Your task to perform on an android device: Open Chrome and go to settings Image 0: 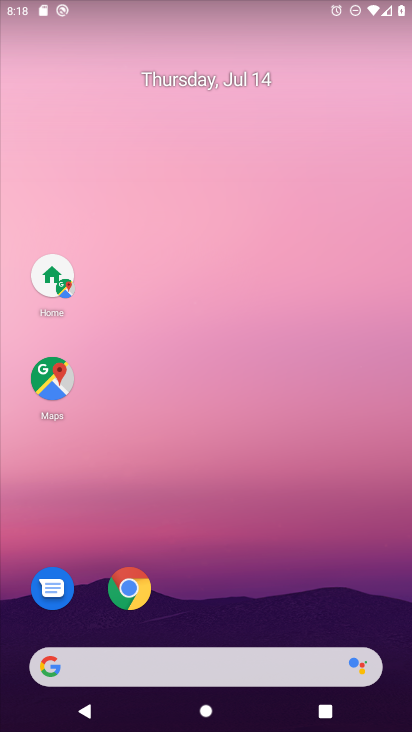
Step 0: click (129, 585)
Your task to perform on an android device: Open Chrome and go to settings Image 1: 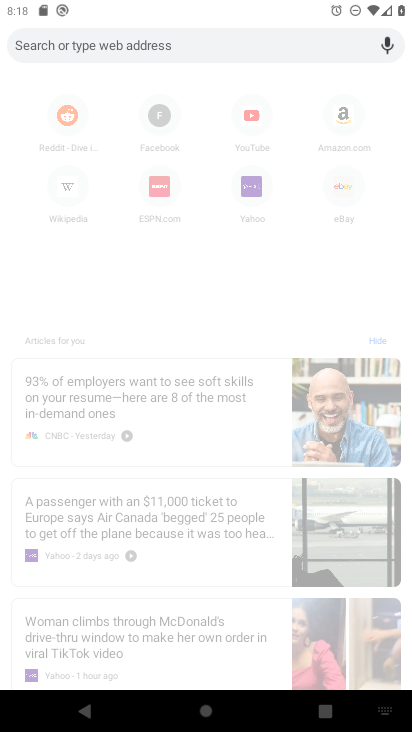
Step 1: click (116, 262)
Your task to perform on an android device: Open Chrome and go to settings Image 2: 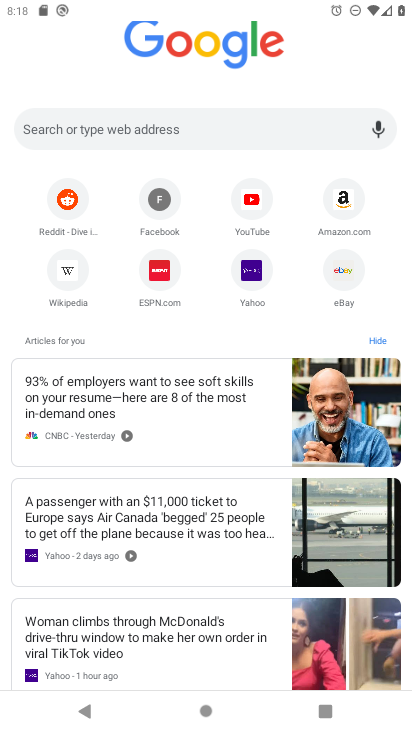
Step 2: click (207, 121)
Your task to perform on an android device: Open Chrome and go to settings Image 3: 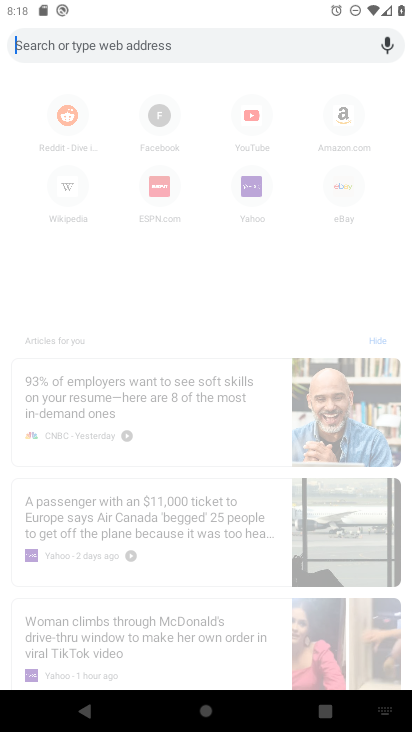
Step 3: click (130, 337)
Your task to perform on an android device: Open Chrome and go to settings Image 4: 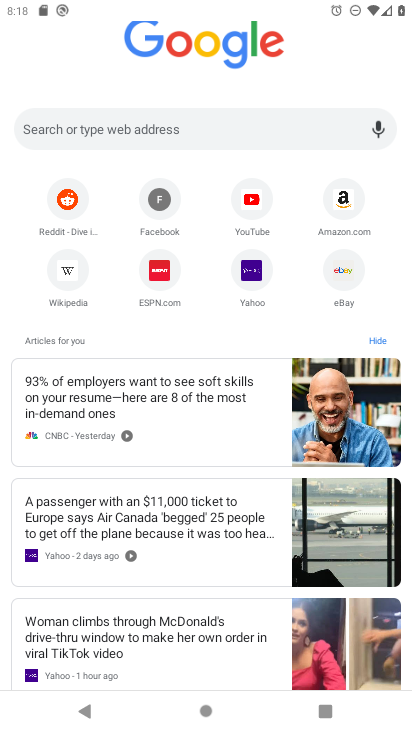
Step 4: click (317, 710)
Your task to perform on an android device: Open Chrome and go to settings Image 5: 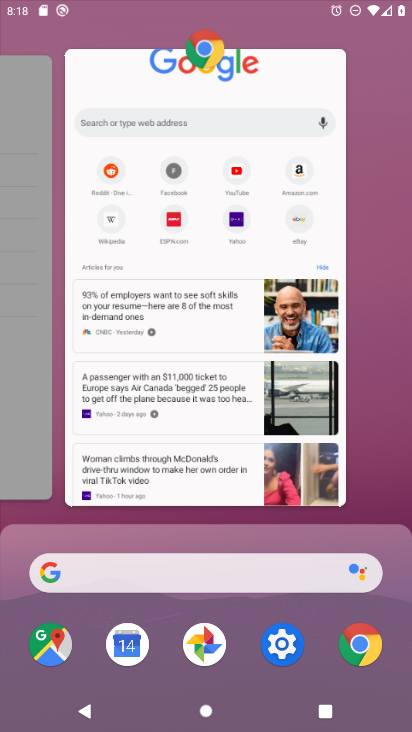
Step 5: click (274, 153)
Your task to perform on an android device: Open Chrome and go to settings Image 6: 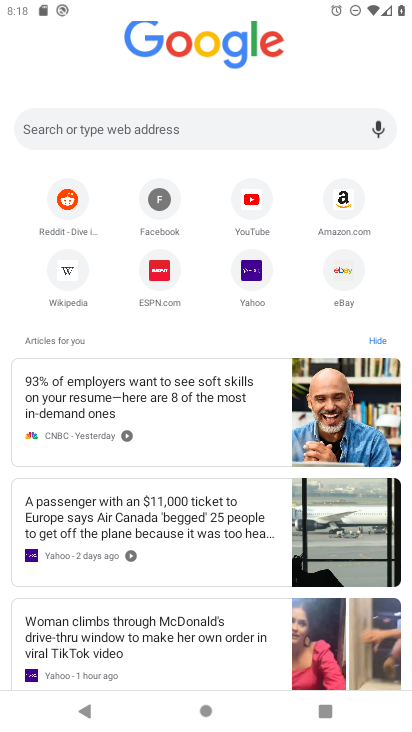
Step 6: task complete